Your task to perform on an android device: Clear all items from cart on costco. Add "razer blade" to the cart on costco Image 0: 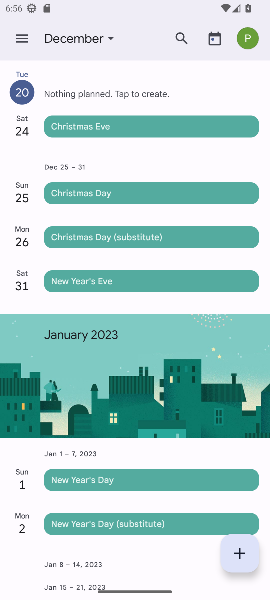
Step 0: press home button
Your task to perform on an android device: Clear all items from cart on costco. Add "razer blade" to the cart on costco Image 1: 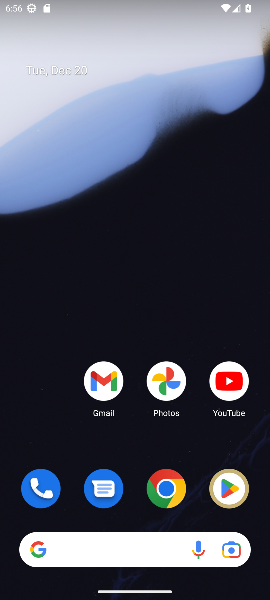
Step 1: drag from (47, 448) to (50, 91)
Your task to perform on an android device: Clear all items from cart on costco. Add "razer blade" to the cart on costco Image 2: 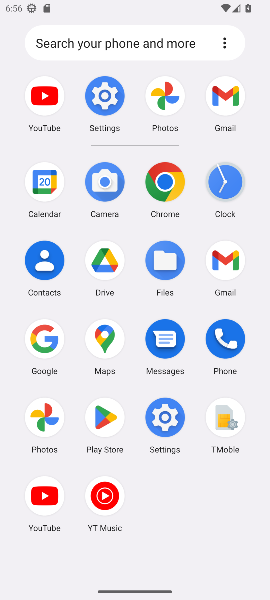
Step 2: click (28, 334)
Your task to perform on an android device: Clear all items from cart on costco. Add "razer blade" to the cart on costco Image 3: 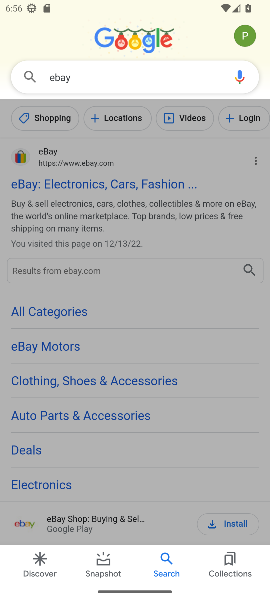
Step 3: click (110, 69)
Your task to perform on an android device: Clear all items from cart on costco. Add "razer blade" to the cart on costco Image 4: 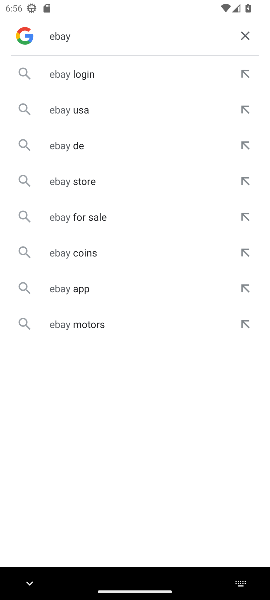
Step 4: click (247, 35)
Your task to perform on an android device: Clear all items from cart on costco. Add "razer blade" to the cart on costco Image 5: 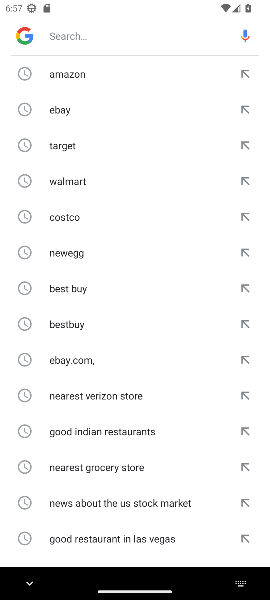
Step 5: type "costco"
Your task to perform on an android device: Clear all items from cart on costco. Add "razer blade" to the cart on costco Image 6: 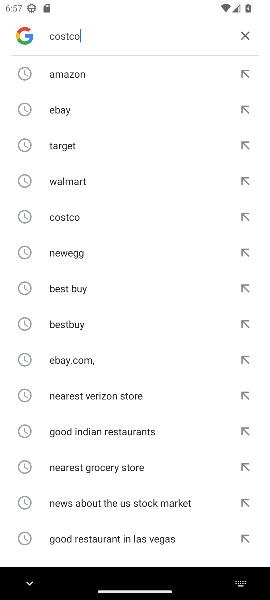
Step 6: press enter
Your task to perform on an android device: Clear all items from cart on costco. Add "razer blade" to the cart on costco Image 7: 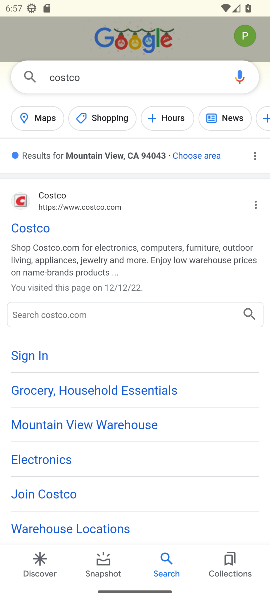
Step 7: click (26, 226)
Your task to perform on an android device: Clear all items from cart on costco. Add "razer blade" to the cart on costco Image 8: 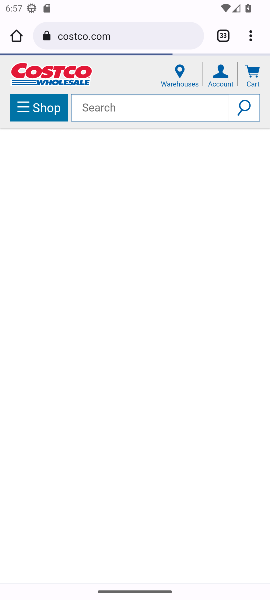
Step 8: click (31, 229)
Your task to perform on an android device: Clear all items from cart on costco. Add "razer blade" to the cart on costco Image 9: 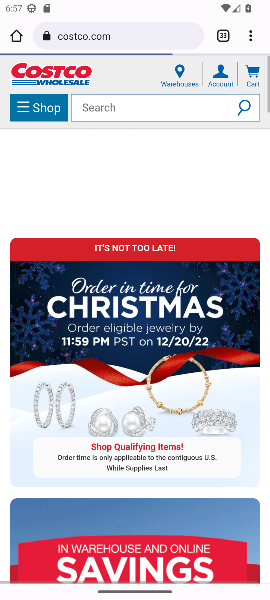
Step 9: drag from (139, 408) to (135, 106)
Your task to perform on an android device: Clear all items from cart on costco. Add "razer blade" to the cart on costco Image 10: 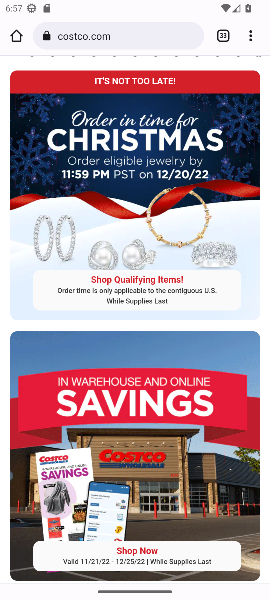
Step 10: drag from (204, 167) to (191, 516)
Your task to perform on an android device: Clear all items from cart on costco. Add "razer blade" to the cart on costco Image 11: 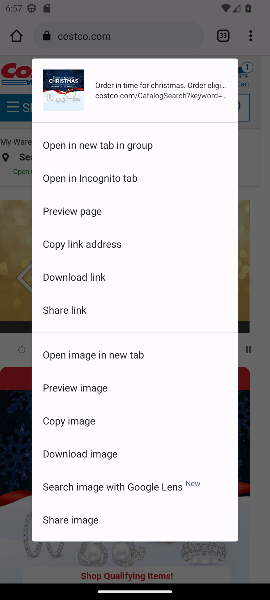
Step 11: click (261, 246)
Your task to perform on an android device: Clear all items from cart on costco. Add "razer blade" to the cart on costco Image 12: 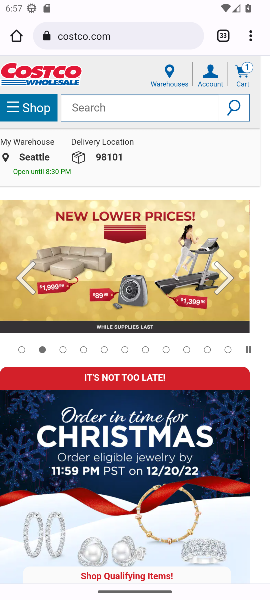
Step 12: click (243, 74)
Your task to perform on an android device: Clear all items from cart on costco. Add "razer blade" to the cart on costco Image 13: 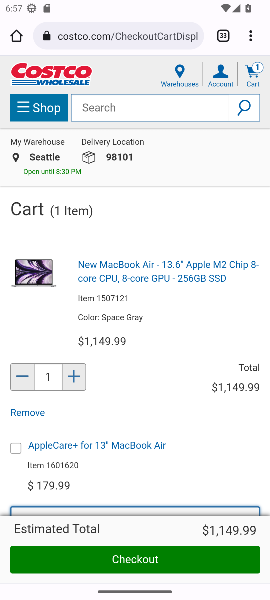
Step 13: click (15, 405)
Your task to perform on an android device: Clear all items from cart on costco. Add "razer blade" to the cart on costco Image 14: 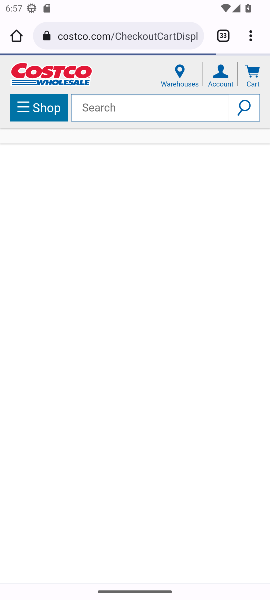
Step 14: click (11, 410)
Your task to perform on an android device: Clear all items from cart on costco. Add "razer blade" to the cart on costco Image 15: 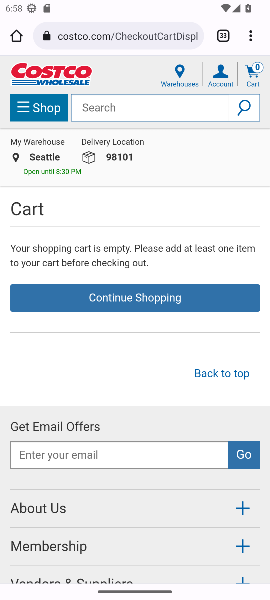
Step 15: click (100, 109)
Your task to perform on an android device: Clear all items from cart on costco. Add "razer blade" to the cart on costco Image 16: 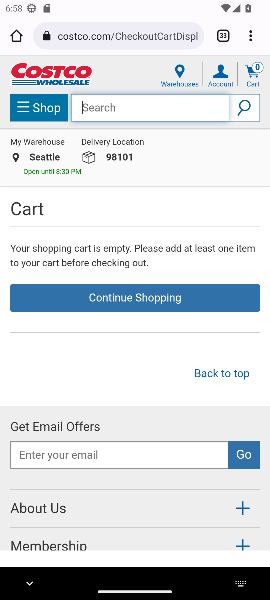
Step 16: type "razer blade"
Your task to perform on an android device: Clear all items from cart on costco. Add "razer blade" to the cart on costco Image 17: 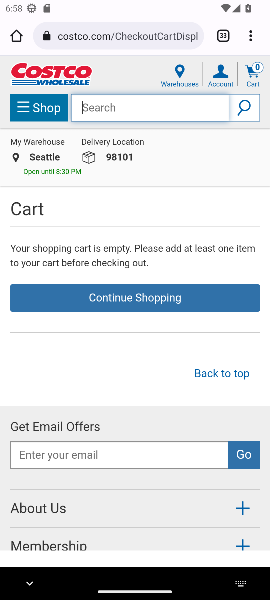
Step 17: press enter
Your task to perform on an android device: Clear all items from cart on costco. Add "razer blade" to the cart on costco Image 18: 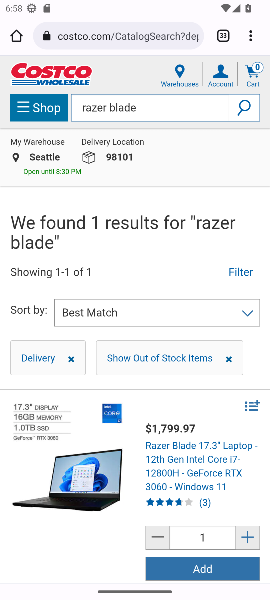
Step 18: click (210, 571)
Your task to perform on an android device: Clear all items from cart on costco. Add "razer blade" to the cart on costco Image 19: 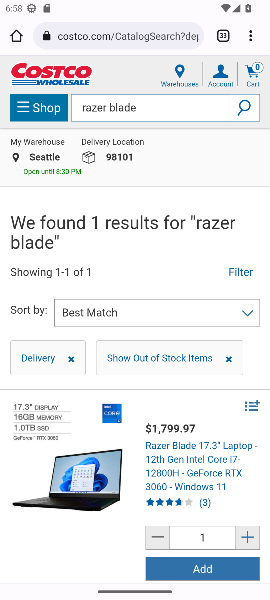
Step 19: click (203, 569)
Your task to perform on an android device: Clear all items from cart on costco. Add "razer blade" to the cart on costco Image 20: 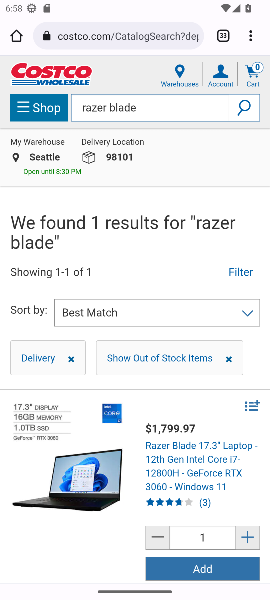
Step 20: task complete